Your task to perform on an android device: Toggle the flashlight Image 0: 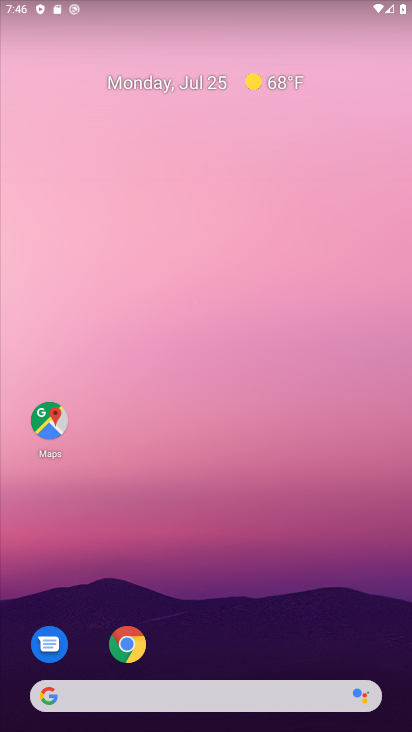
Step 0: drag from (220, 706) to (208, 107)
Your task to perform on an android device: Toggle the flashlight Image 1: 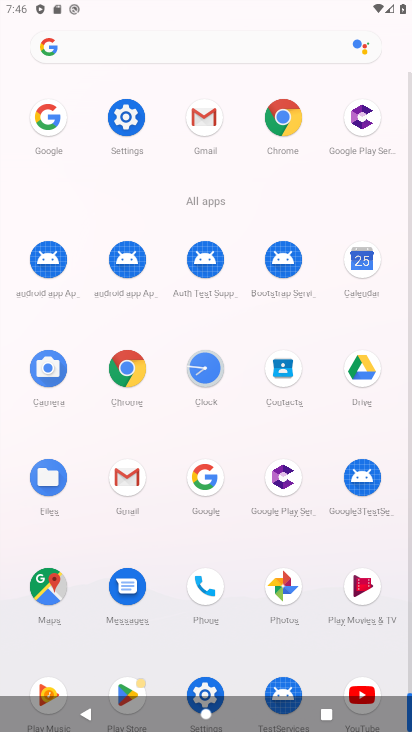
Step 1: task complete